Your task to perform on an android device: toggle data saver in the chrome app Image 0: 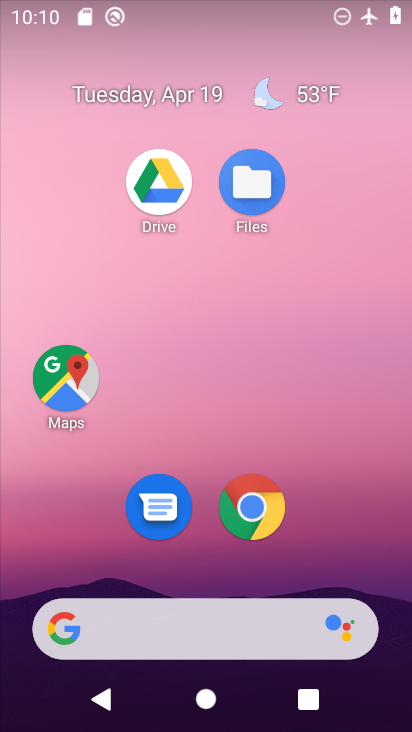
Step 0: click (263, 509)
Your task to perform on an android device: toggle data saver in the chrome app Image 1: 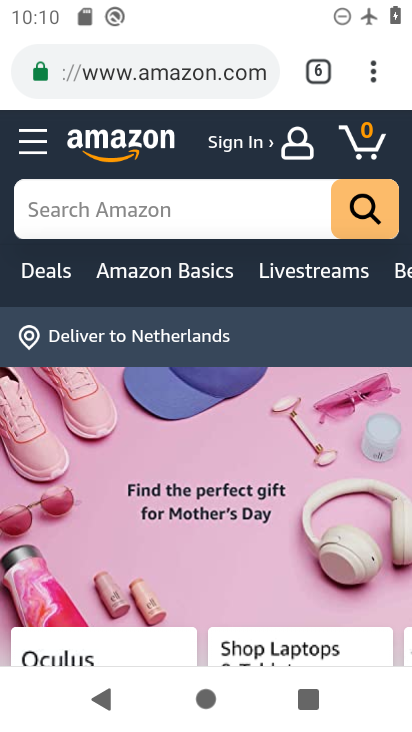
Step 1: drag from (373, 68) to (252, 495)
Your task to perform on an android device: toggle data saver in the chrome app Image 2: 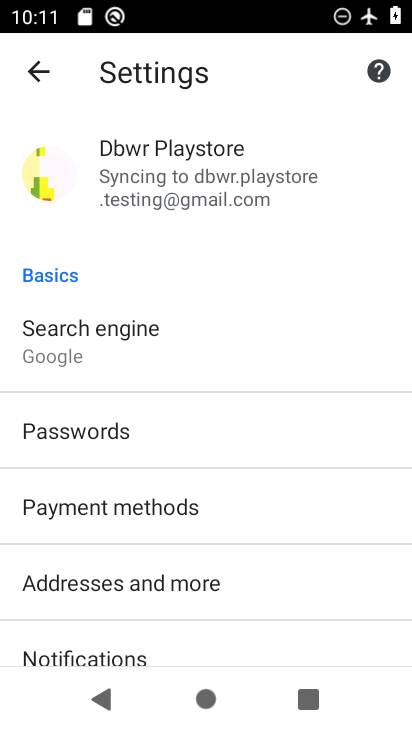
Step 2: drag from (298, 609) to (305, 182)
Your task to perform on an android device: toggle data saver in the chrome app Image 3: 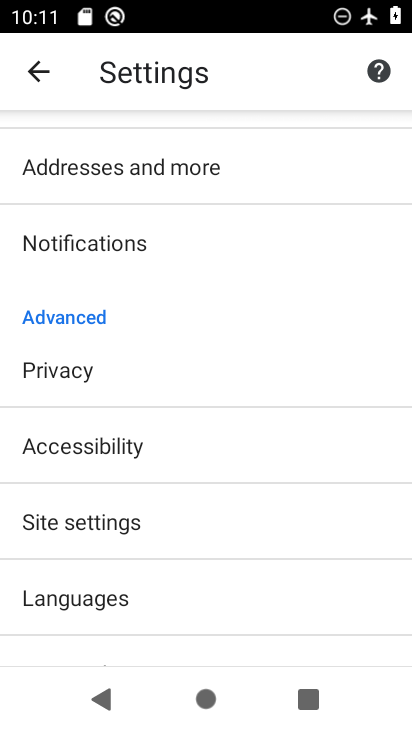
Step 3: drag from (239, 586) to (222, 281)
Your task to perform on an android device: toggle data saver in the chrome app Image 4: 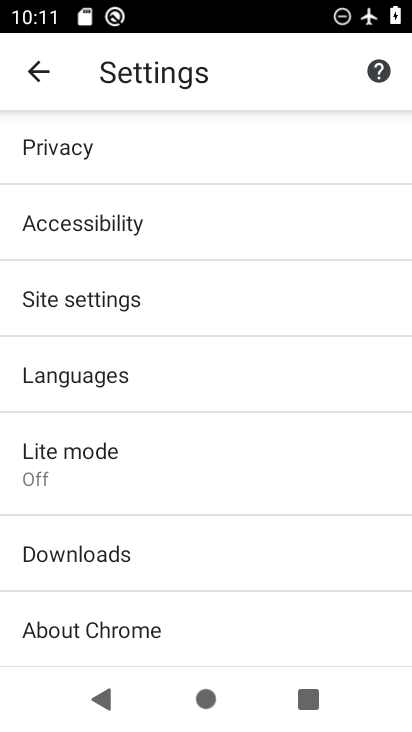
Step 4: click (200, 487)
Your task to perform on an android device: toggle data saver in the chrome app Image 5: 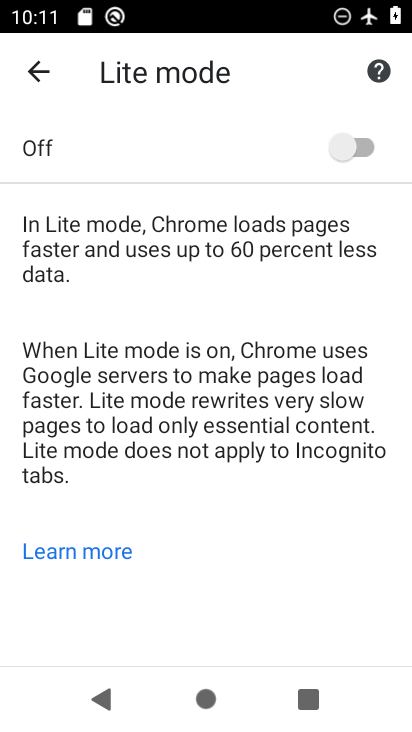
Step 5: click (360, 139)
Your task to perform on an android device: toggle data saver in the chrome app Image 6: 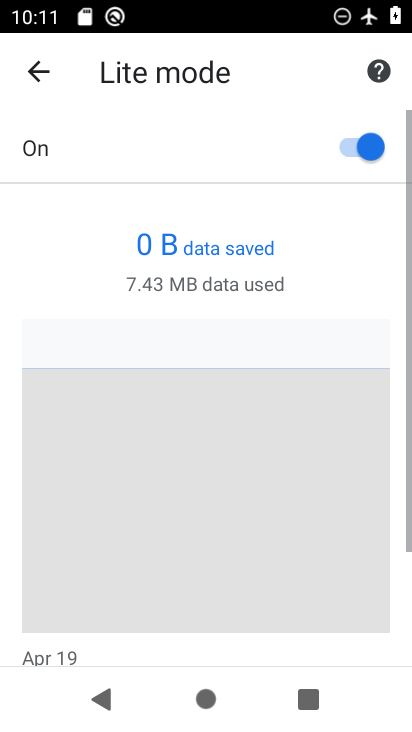
Step 6: task complete